Your task to perform on an android device: open a bookmark in the chrome app Image 0: 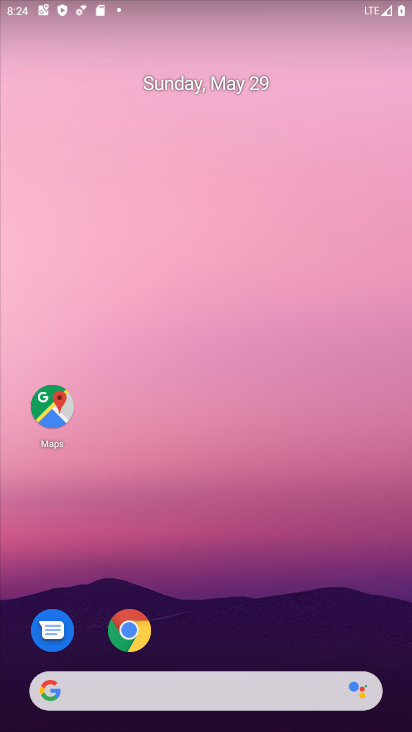
Step 0: click (122, 623)
Your task to perform on an android device: open a bookmark in the chrome app Image 1: 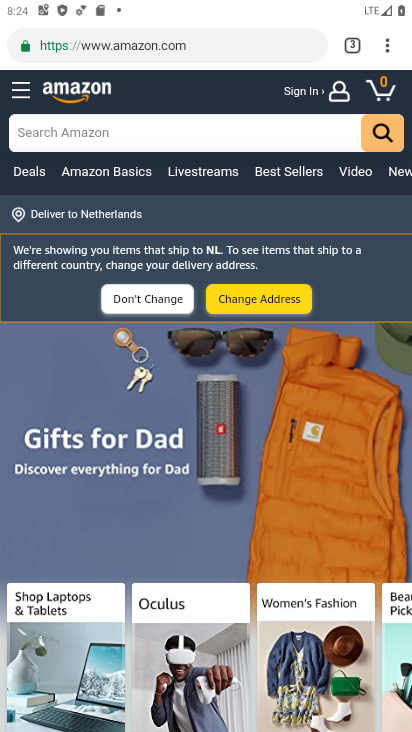
Step 1: click (384, 44)
Your task to perform on an android device: open a bookmark in the chrome app Image 2: 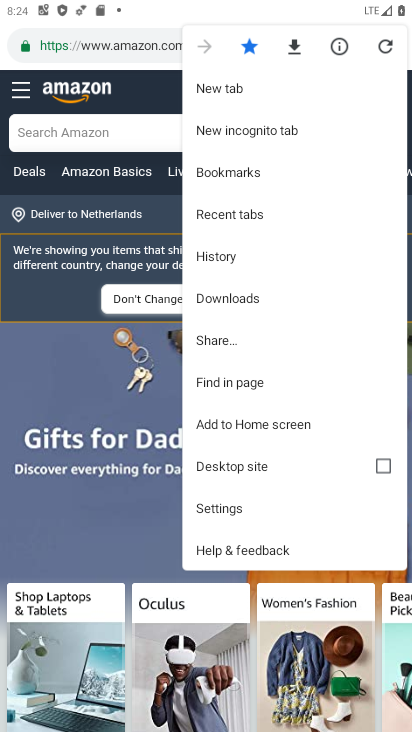
Step 2: click (263, 173)
Your task to perform on an android device: open a bookmark in the chrome app Image 3: 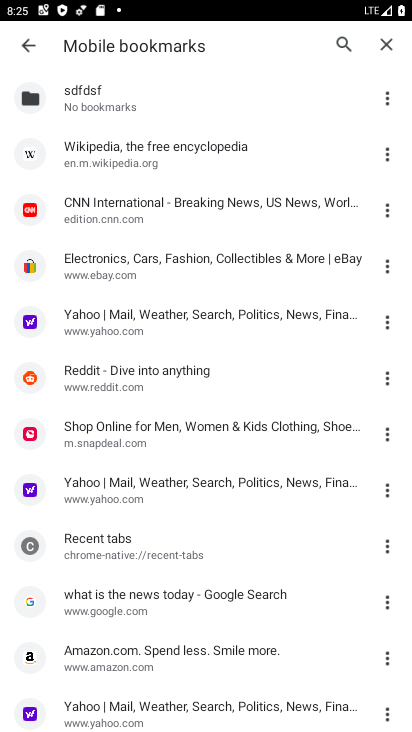
Step 3: task complete